Your task to perform on an android device: turn on notifications settings in the gmail app Image 0: 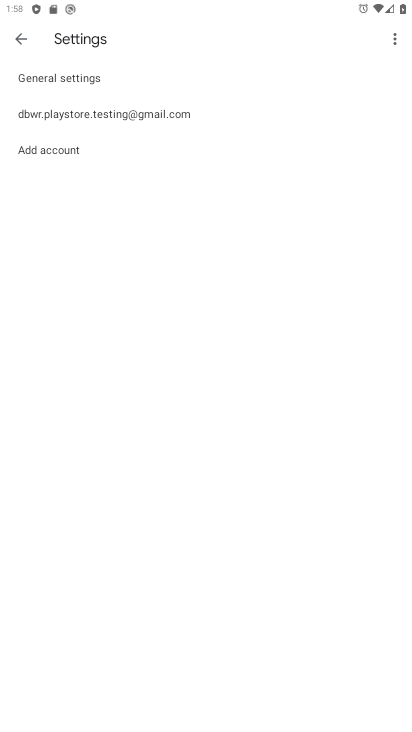
Step 0: press home button
Your task to perform on an android device: turn on notifications settings in the gmail app Image 1: 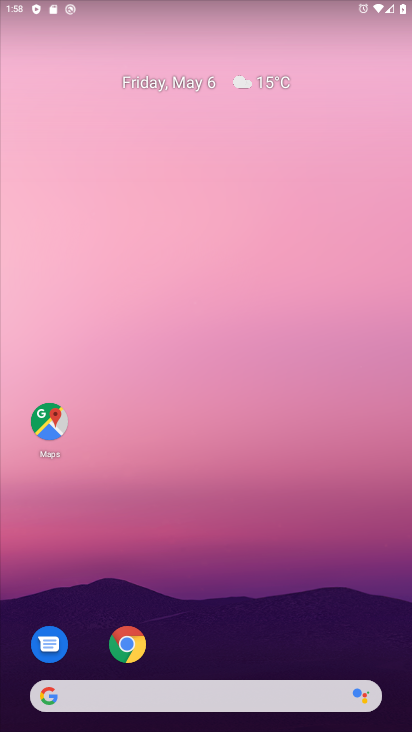
Step 1: drag from (278, 624) to (245, 68)
Your task to perform on an android device: turn on notifications settings in the gmail app Image 2: 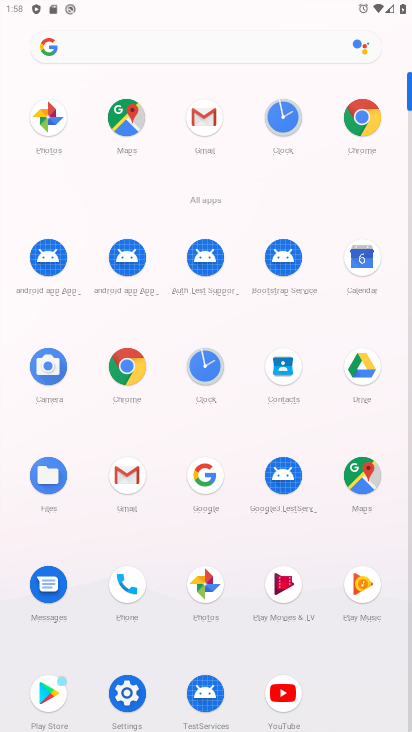
Step 2: click (200, 130)
Your task to perform on an android device: turn on notifications settings in the gmail app Image 3: 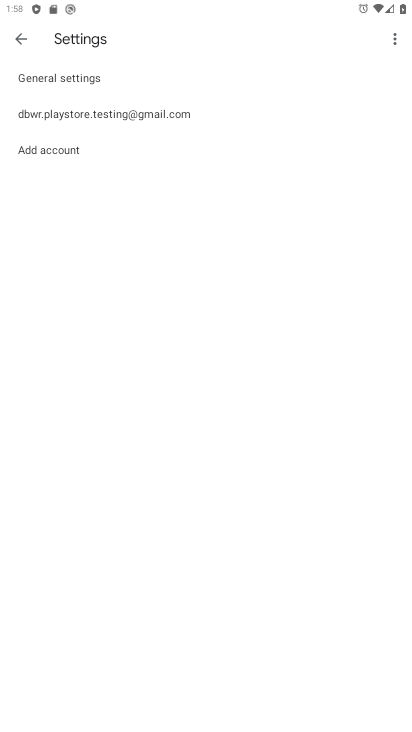
Step 3: click (183, 114)
Your task to perform on an android device: turn on notifications settings in the gmail app Image 4: 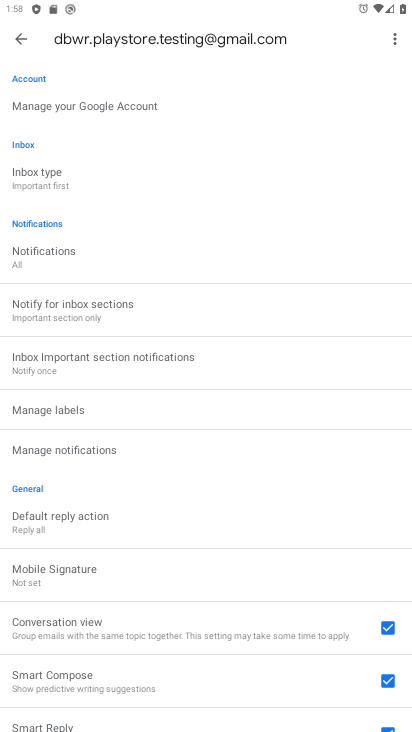
Step 4: click (183, 456)
Your task to perform on an android device: turn on notifications settings in the gmail app Image 5: 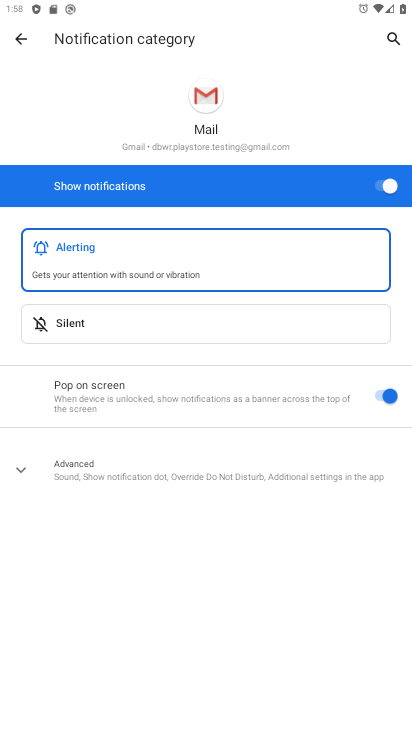
Step 5: task complete